Your task to perform on an android device: open the mobile data screen to see how much data has been used Image 0: 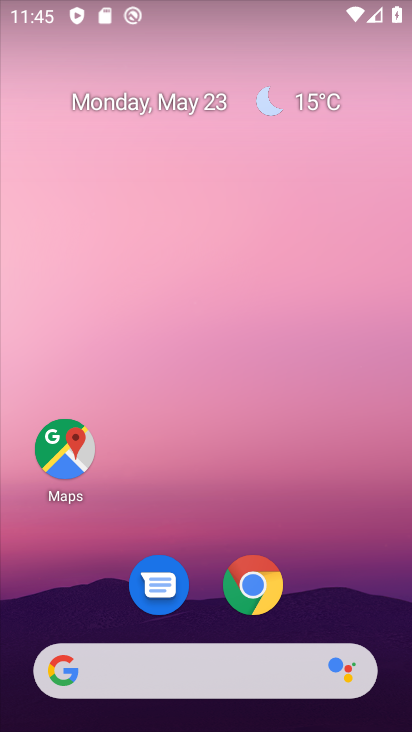
Step 0: drag from (213, 508) to (202, 60)
Your task to perform on an android device: open the mobile data screen to see how much data has been used Image 1: 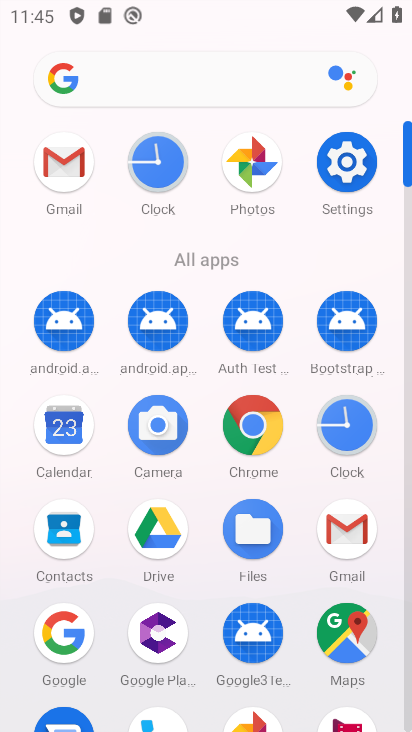
Step 1: click (335, 158)
Your task to perform on an android device: open the mobile data screen to see how much data has been used Image 2: 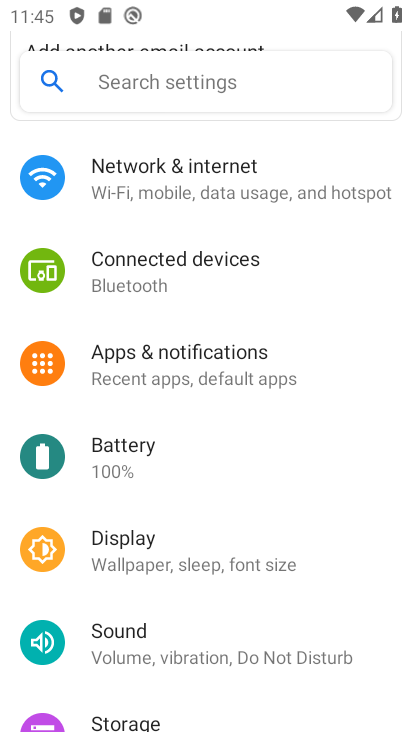
Step 2: click (262, 178)
Your task to perform on an android device: open the mobile data screen to see how much data has been used Image 3: 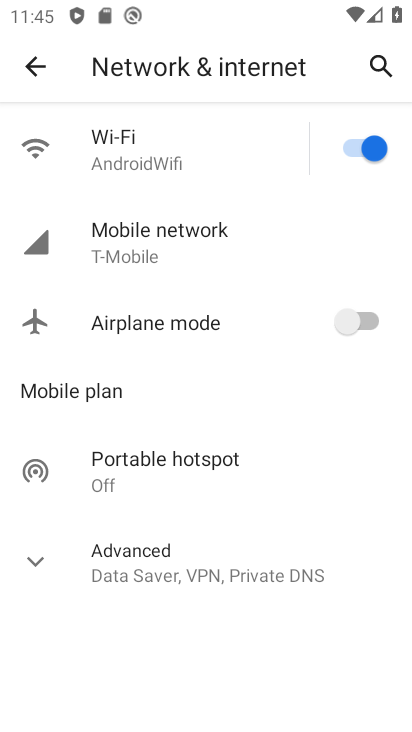
Step 3: click (253, 234)
Your task to perform on an android device: open the mobile data screen to see how much data has been used Image 4: 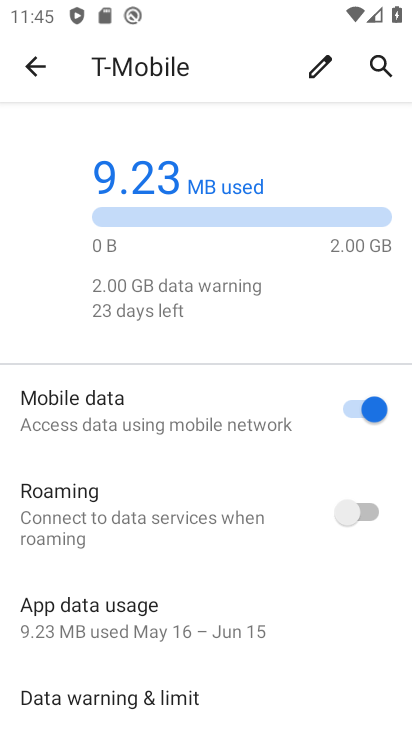
Step 4: task complete